Your task to perform on an android device: open app "WhatsApp Messenger" (install if not already installed) Image 0: 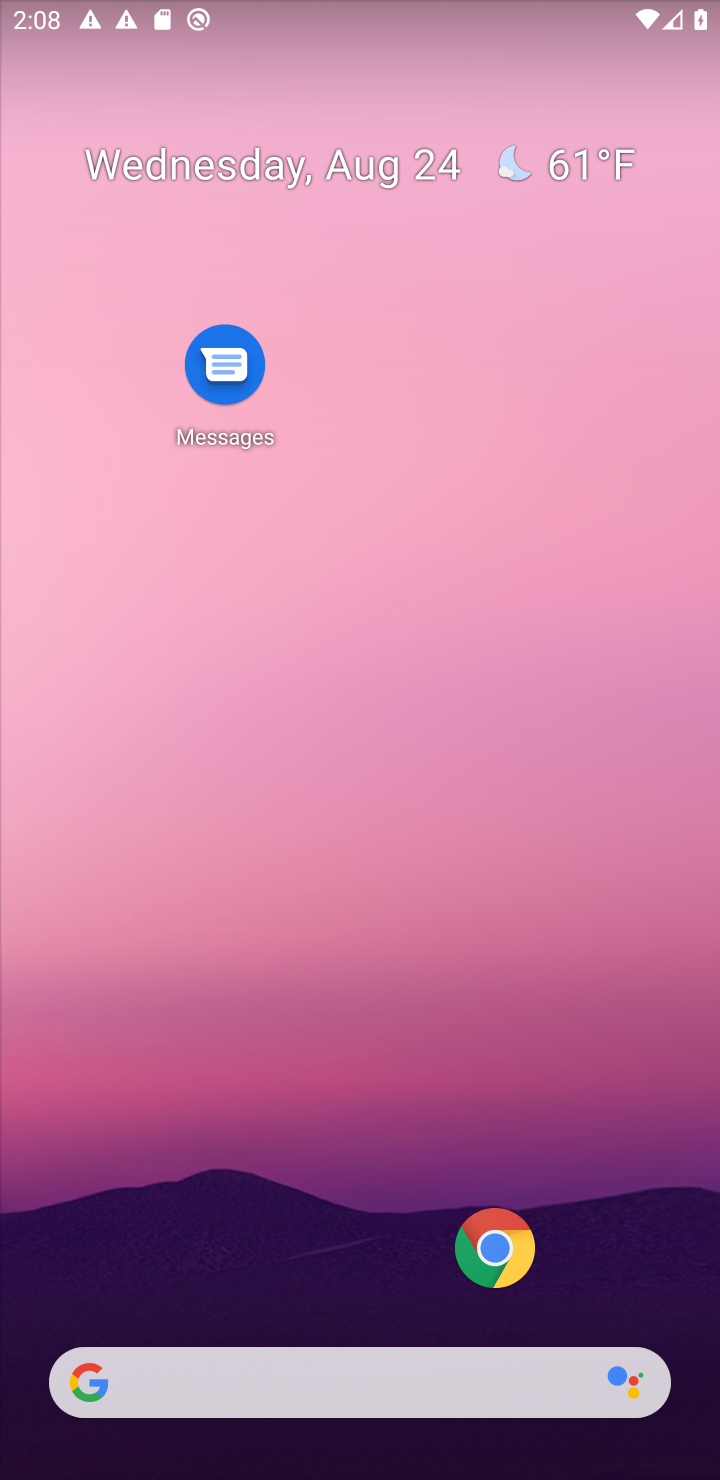
Step 0: drag from (298, 1301) to (392, 461)
Your task to perform on an android device: open app "WhatsApp Messenger" (install if not already installed) Image 1: 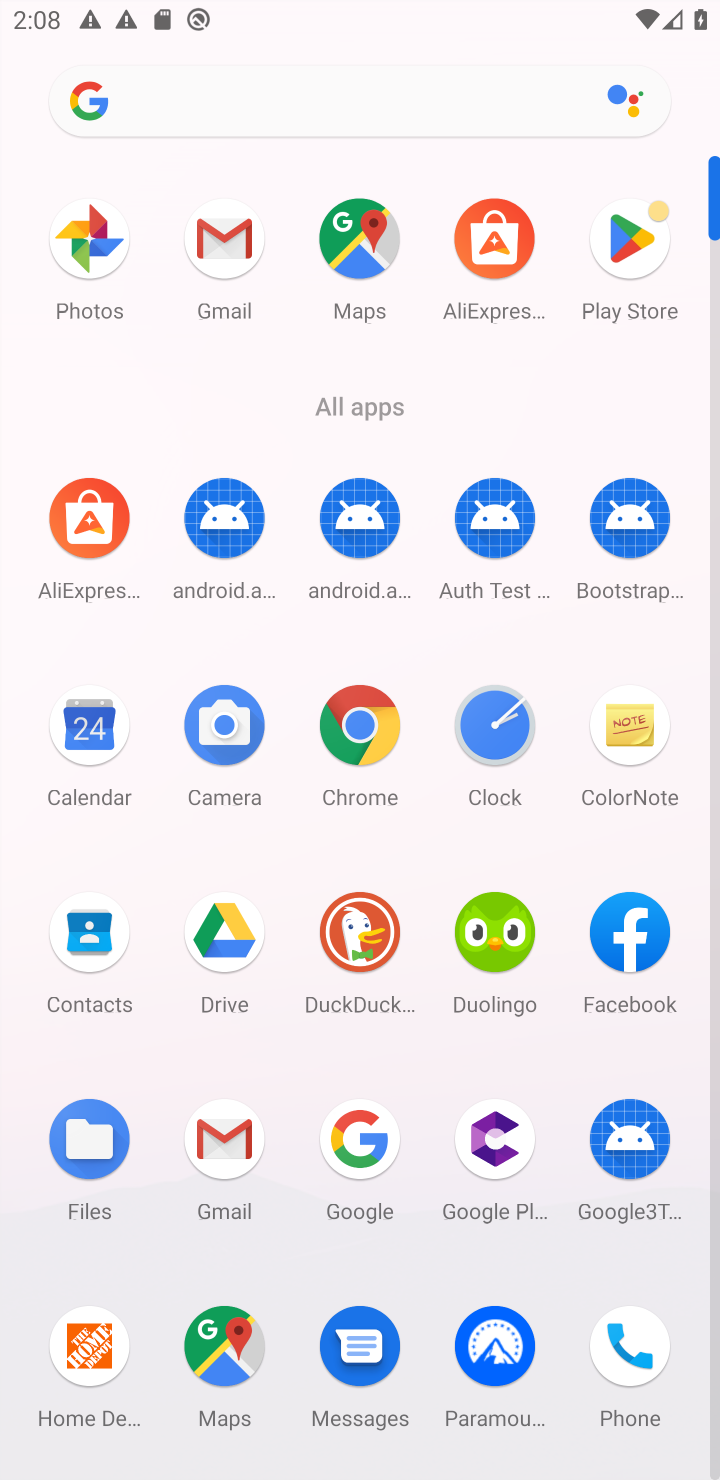
Step 1: click (626, 244)
Your task to perform on an android device: open app "WhatsApp Messenger" (install if not already installed) Image 2: 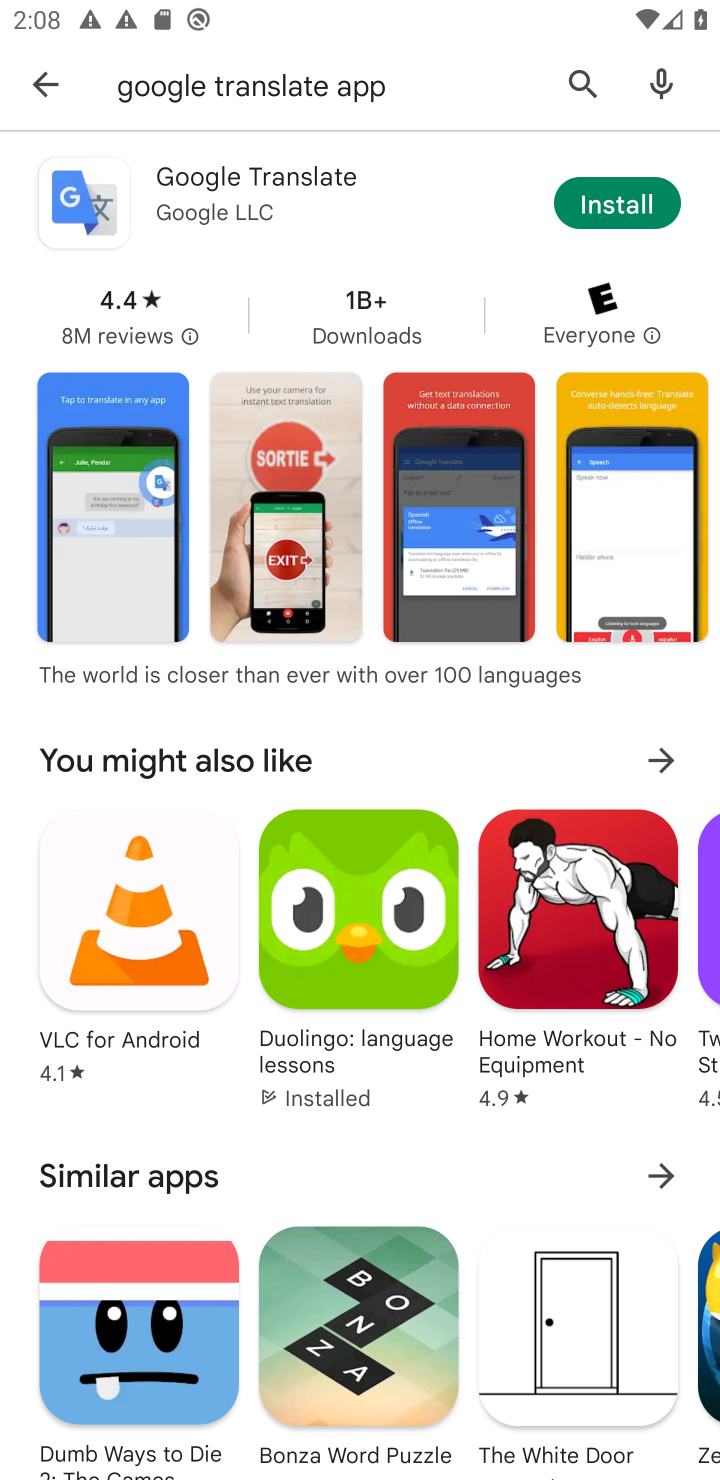
Step 2: click (575, 97)
Your task to perform on an android device: open app "WhatsApp Messenger" (install if not already installed) Image 3: 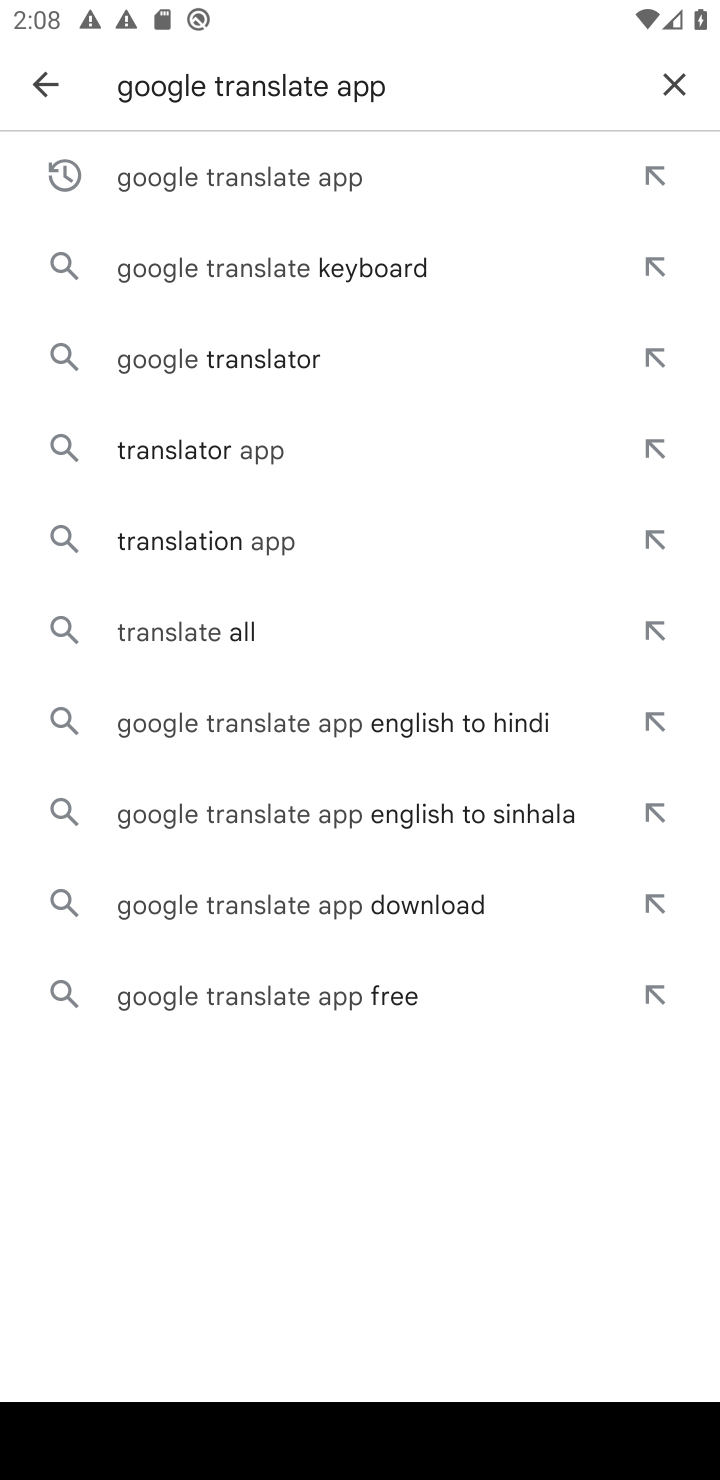
Step 3: click (666, 81)
Your task to perform on an android device: open app "WhatsApp Messenger" (install if not already installed) Image 4: 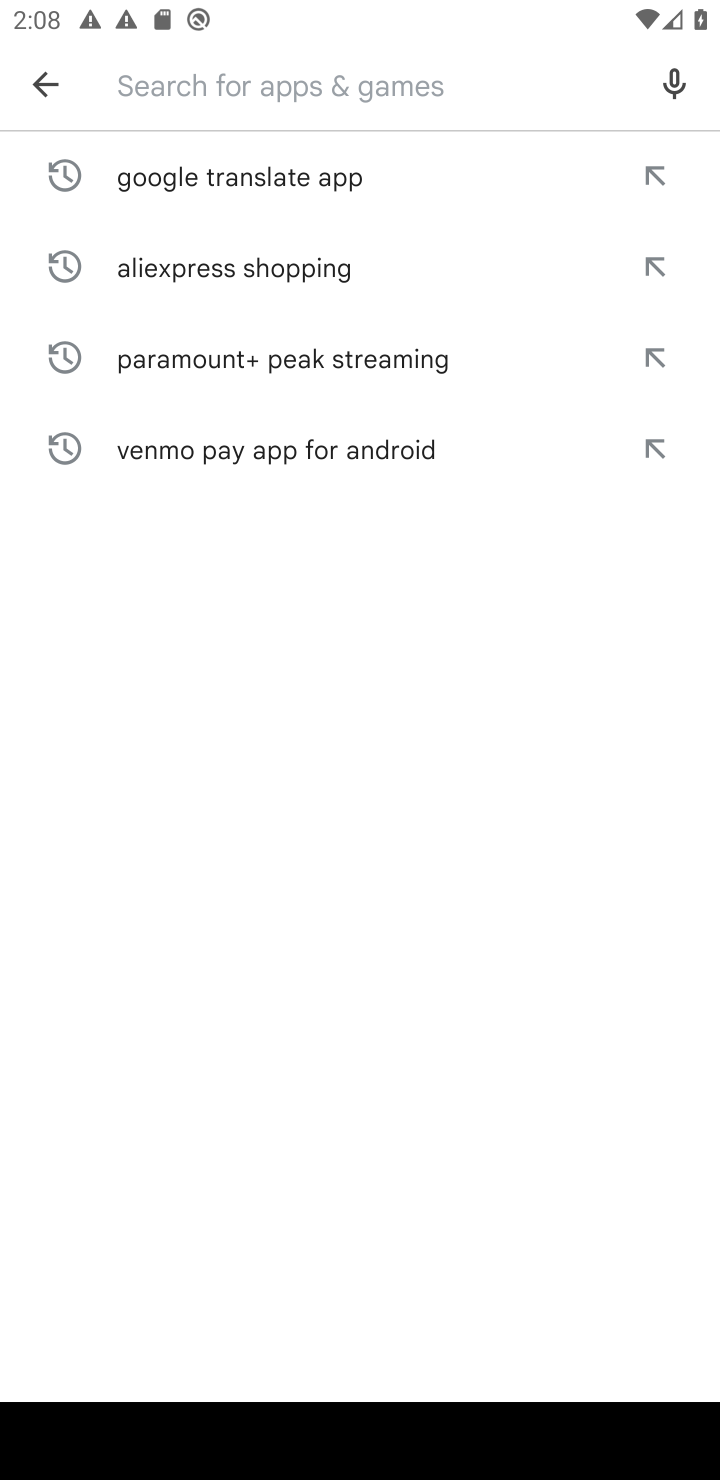
Step 4: click (272, 90)
Your task to perform on an android device: open app "WhatsApp Messenger" (install if not already installed) Image 5: 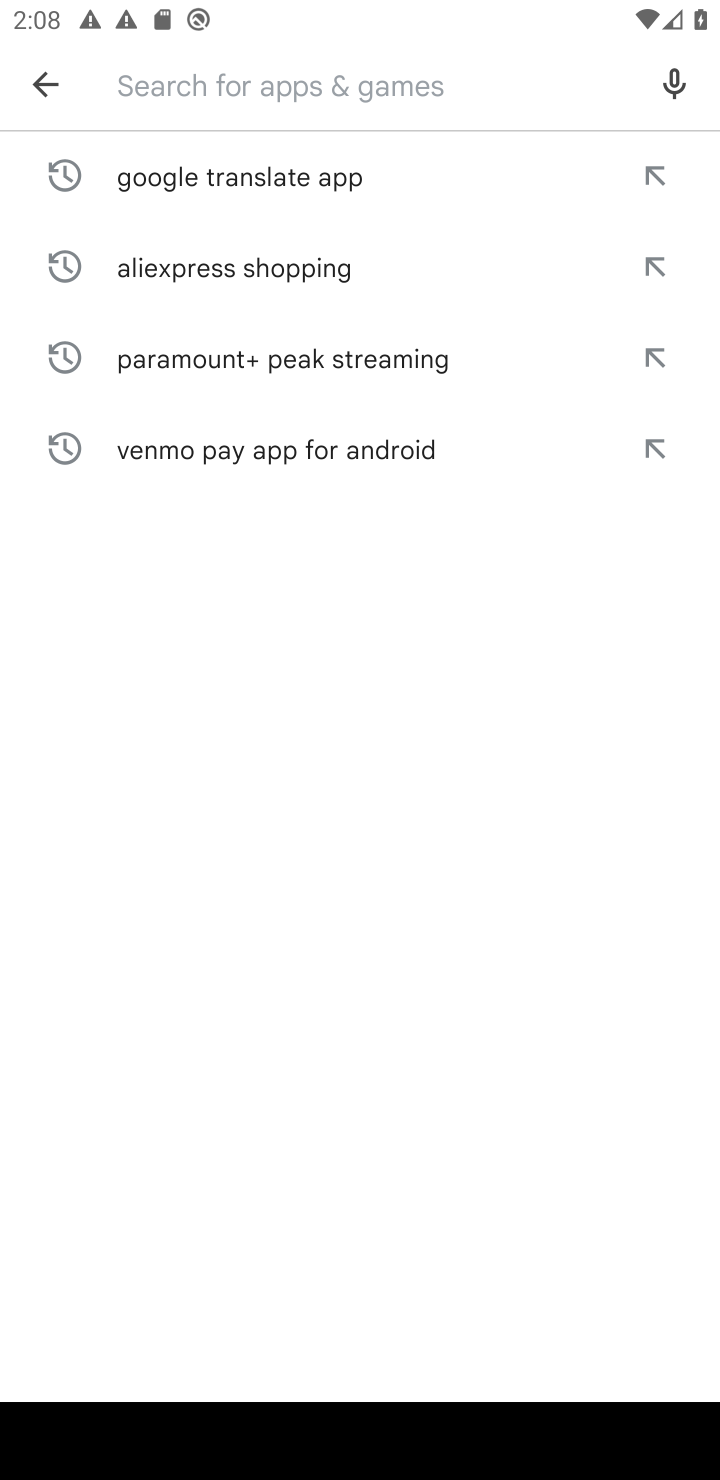
Step 5: type "WhatsApp Messenger "
Your task to perform on an android device: open app "WhatsApp Messenger" (install if not already installed) Image 6: 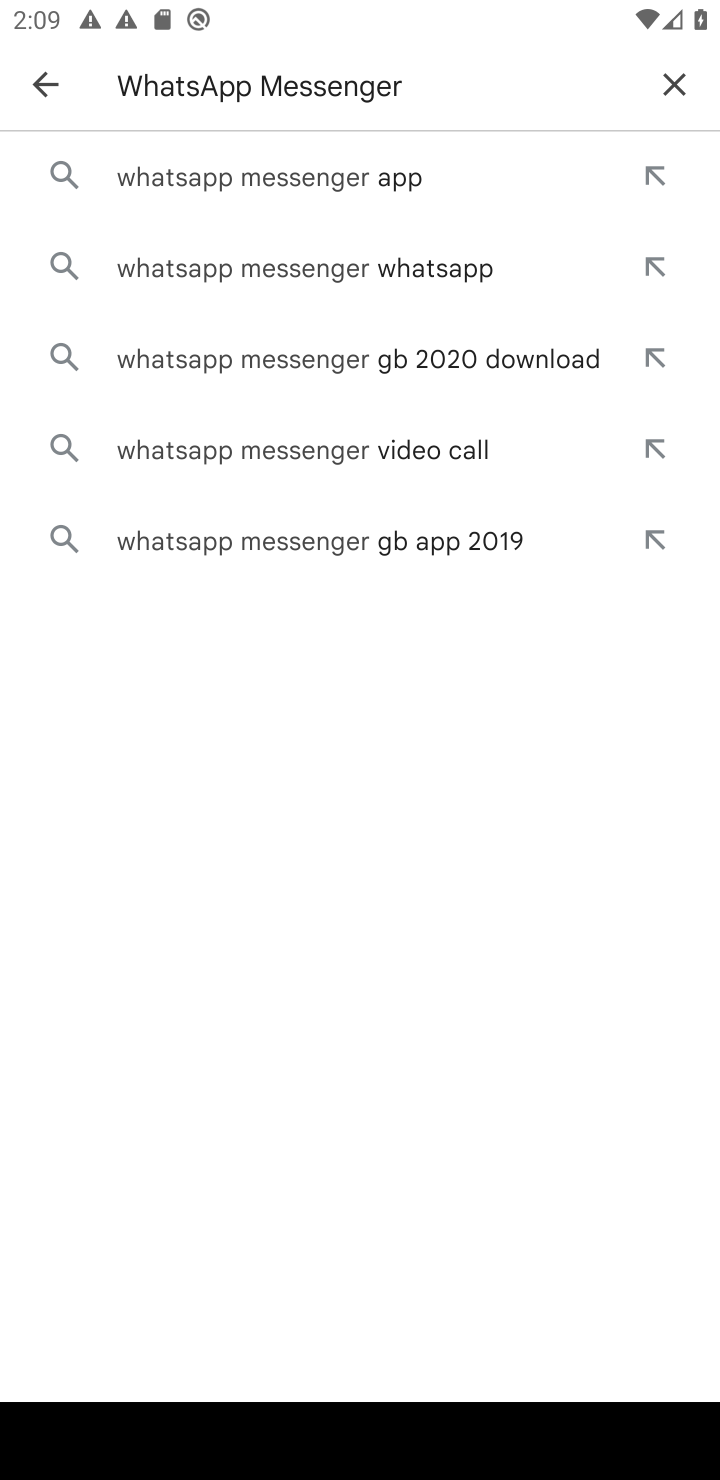
Step 6: click (313, 208)
Your task to perform on an android device: open app "WhatsApp Messenger" (install if not already installed) Image 7: 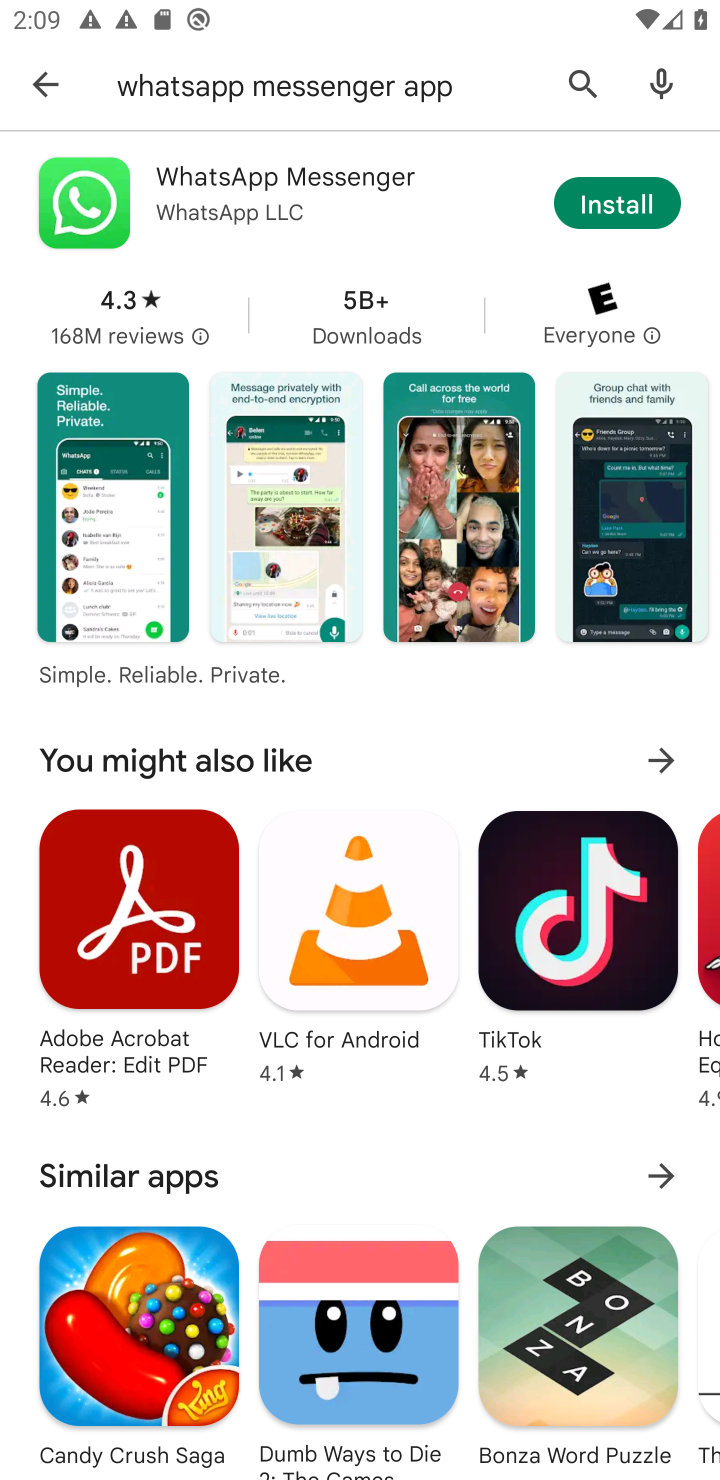
Step 7: click (582, 187)
Your task to perform on an android device: open app "WhatsApp Messenger" (install if not already installed) Image 8: 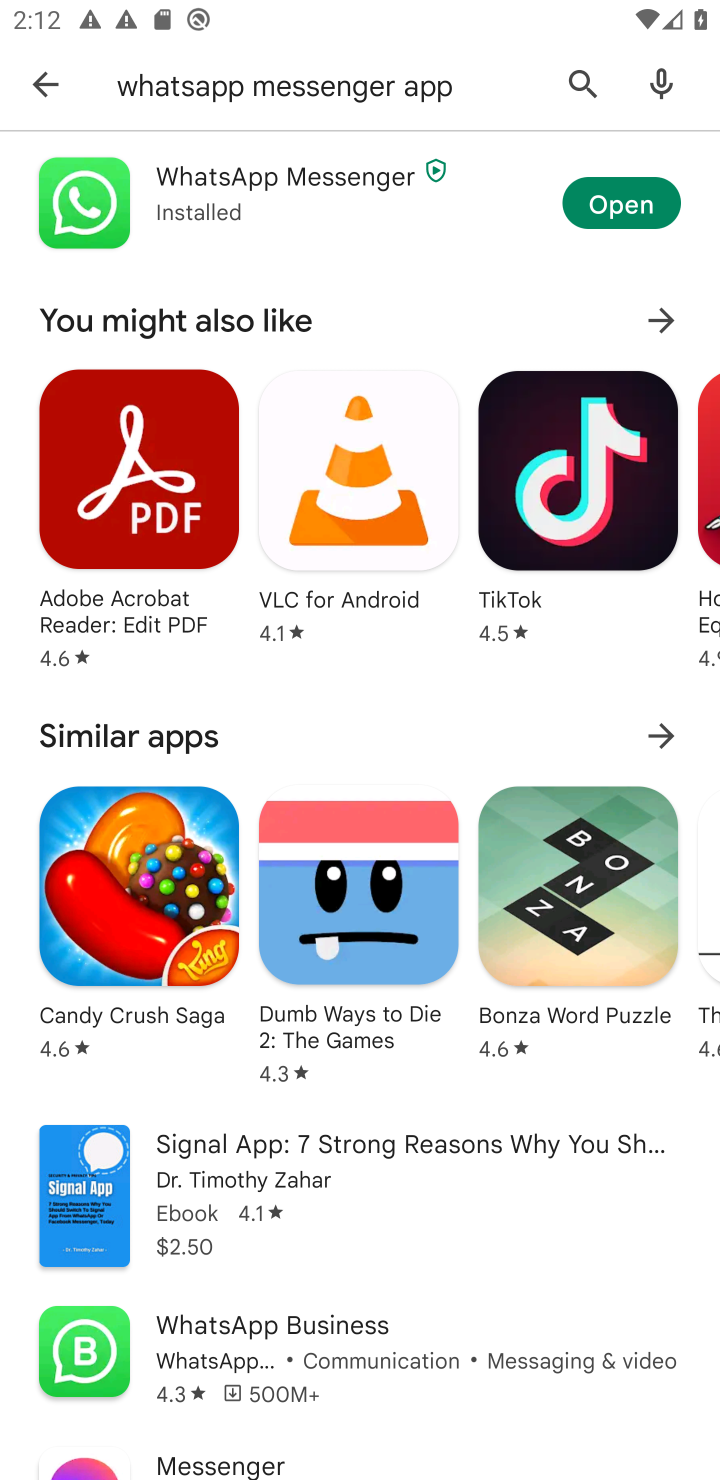
Step 8: task complete